Your task to perform on an android device: Show me recent news Image 0: 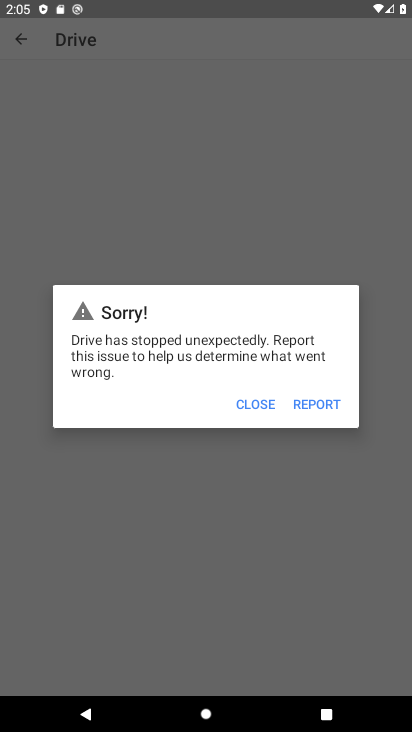
Step 0: press home button
Your task to perform on an android device: Show me recent news Image 1: 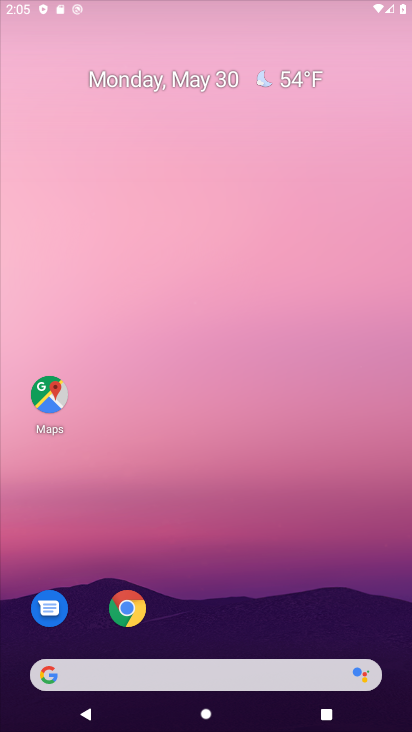
Step 1: drag from (242, 150) to (166, 56)
Your task to perform on an android device: Show me recent news Image 2: 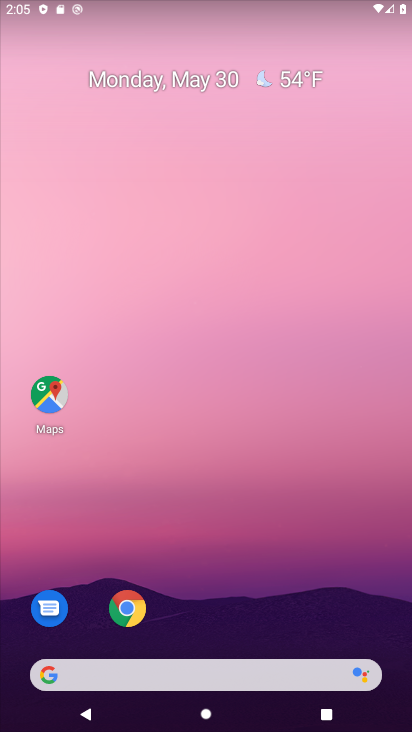
Step 2: drag from (247, 559) to (191, 12)
Your task to perform on an android device: Show me recent news Image 3: 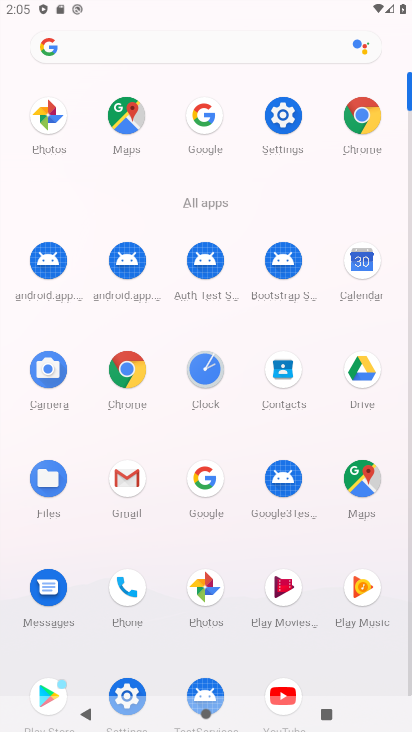
Step 3: click (212, 477)
Your task to perform on an android device: Show me recent news Image 4: 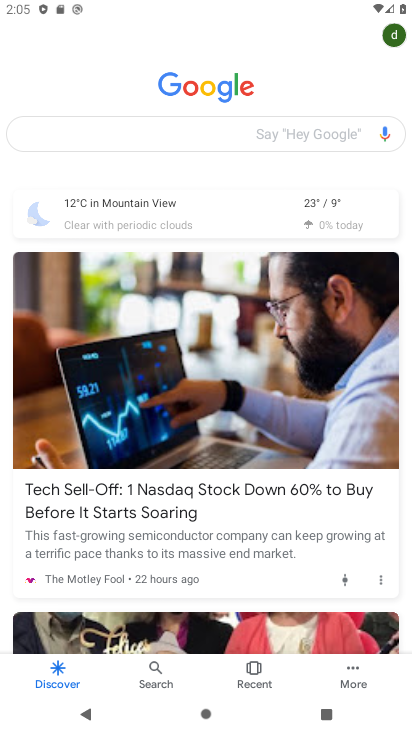
Step 4: task complete